Your task to perform on an android device: change the clock display to digital Image 0: 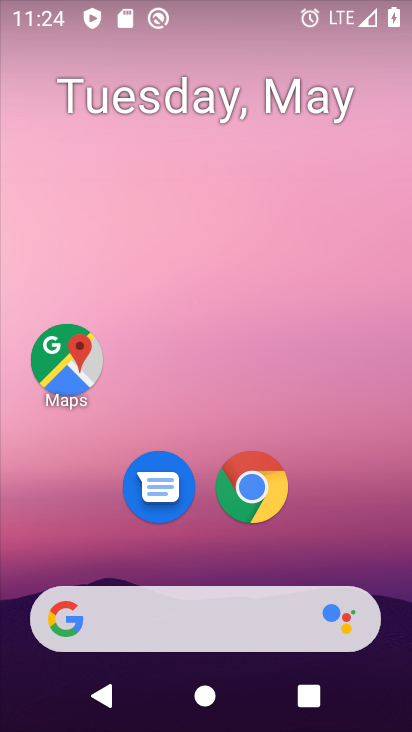
Step 0: drag from (196, 558) to (248, 113)
Your task to perform on an android device: change the clock display to digital Image 1: 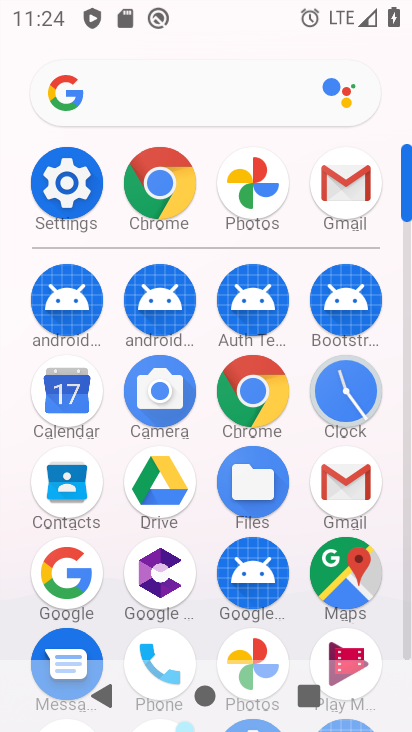
Step 1: click (331, 383)
Your task to perform on an android device: change the clock display to digital Image 2: 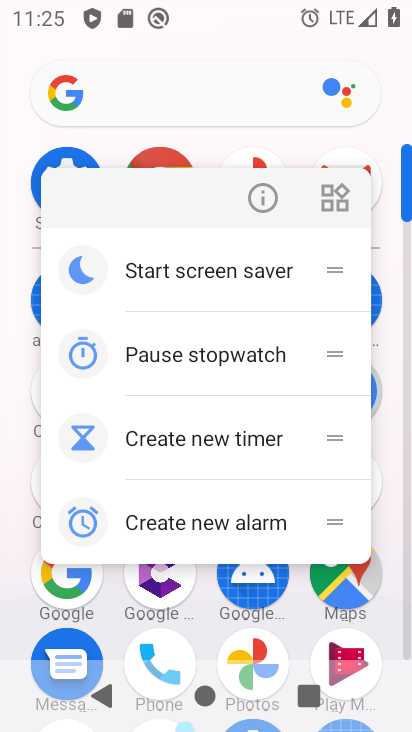
Step 2: click (258, 192)
Your task to perform on an android device: change the clock display to digital Image 3: 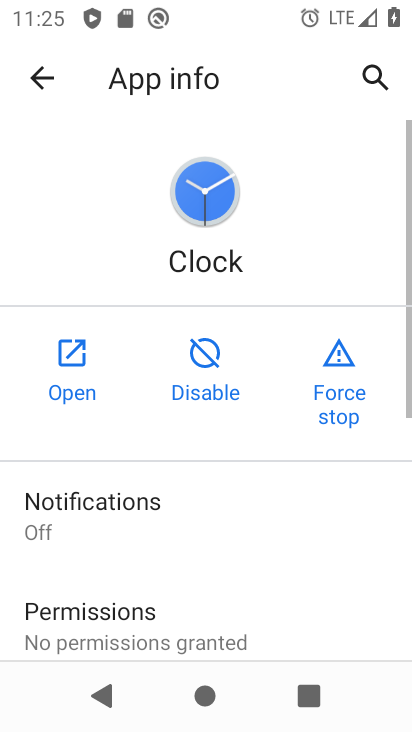
Step 3: click (79, 357)
Your task to perform on an android device: change the clock display to digital Image 4: 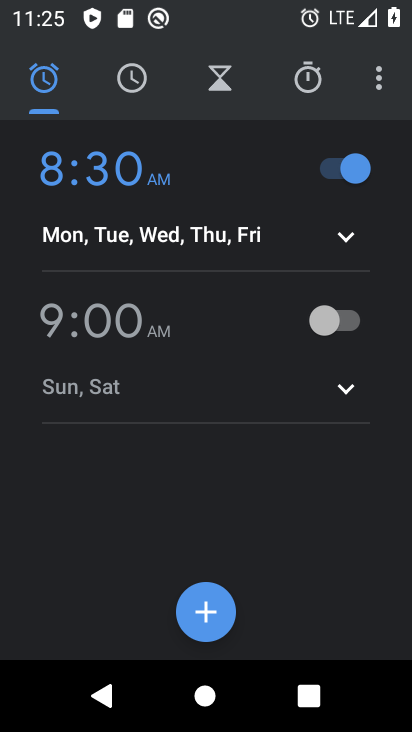
Step 4: click (374, 85)
Your task to perform on an android device: change the clock display to digital Image 5: 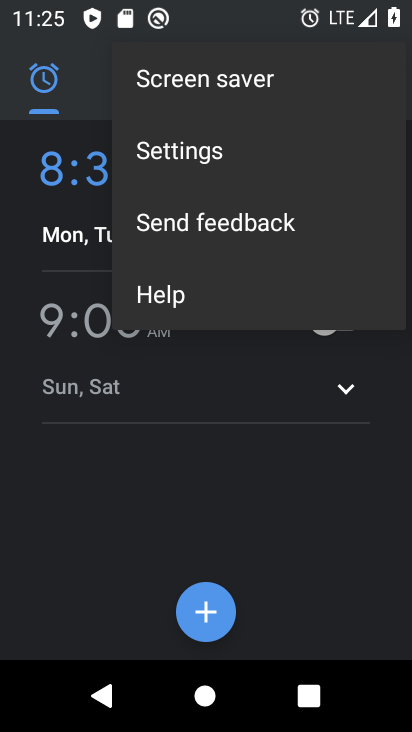
Step 5: click (237, 151)
Your task to perform on an android device: change the clock display to digital Image 6: 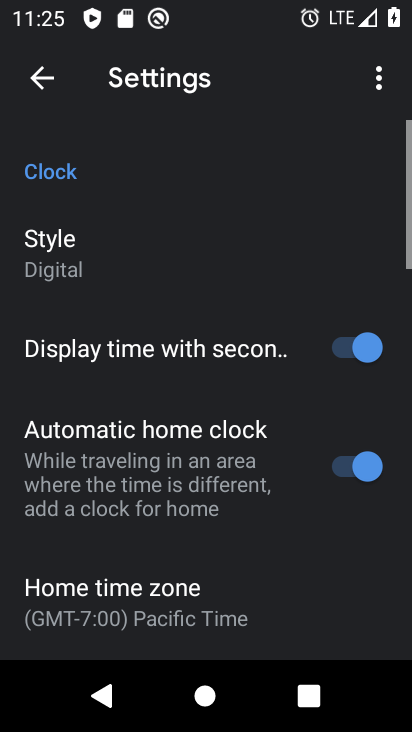
Step 6: click (113, 263)
Your task to perform on an android device: change the clock display to digital Image 7: 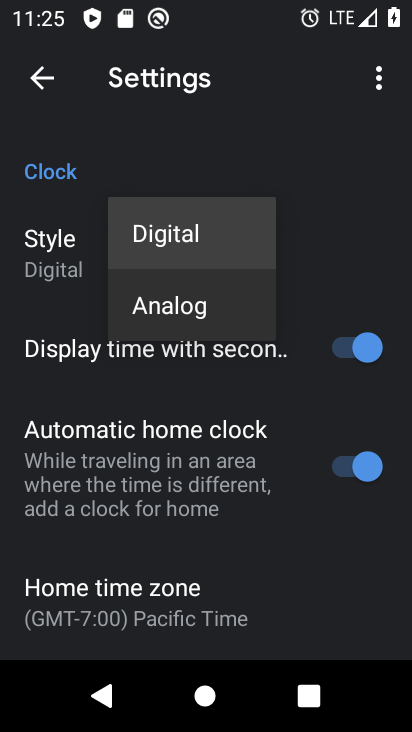
Step 7: click (164, 219)
Your task to perform on an android device: change the clock display to digital Image 8: 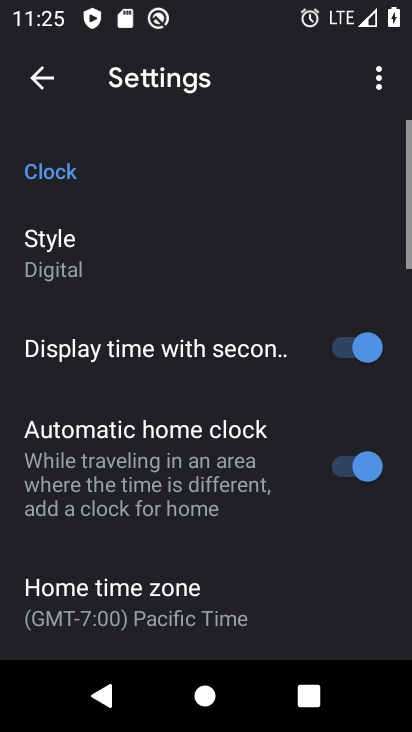
Step 8: task complete